Your task to perform on an android device: Turn off the flashlight Image 0: 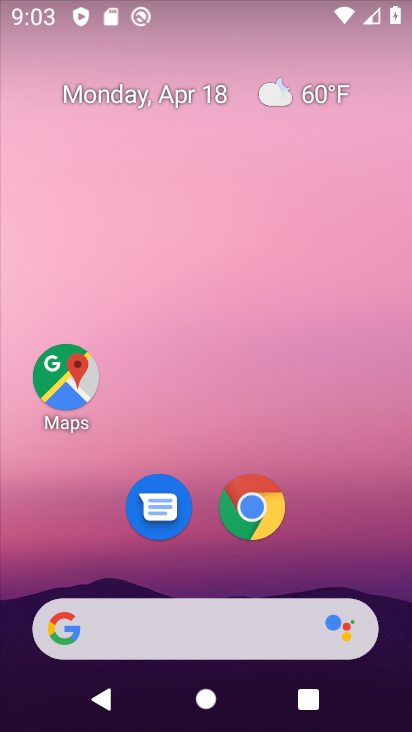
Step 0: drag from (325, 571) to (335, 138)
Your task to perform on an android device: Turn off the flashlight Image 1: 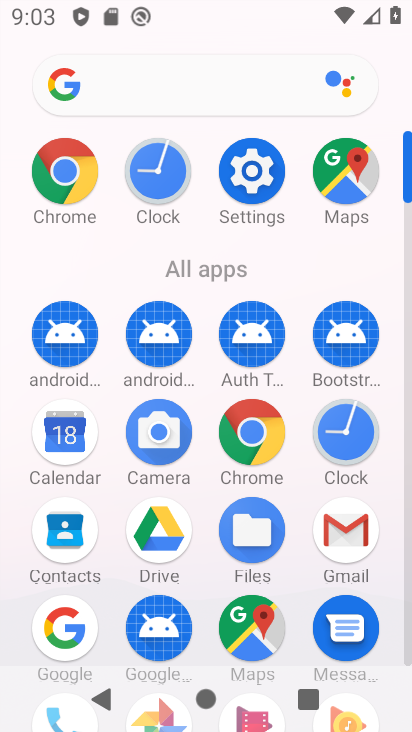
Step 1: click (261, 186)
Your task to perform on an android device: Turn off the flashlight Image 2: 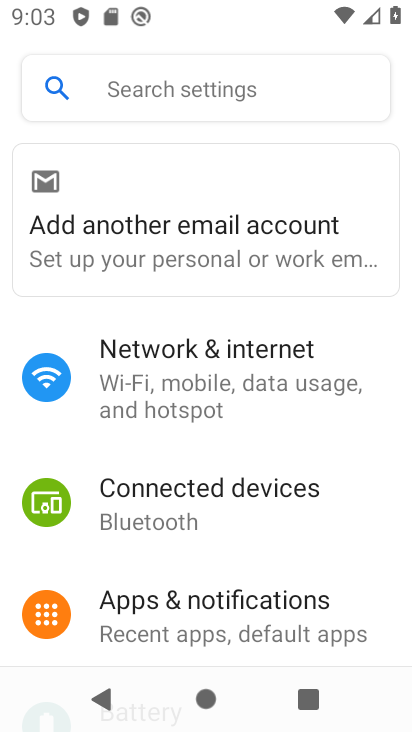
Step 2: click (258, 84)
Your task to perform on an android device: Turn off the flashlight Image 3: 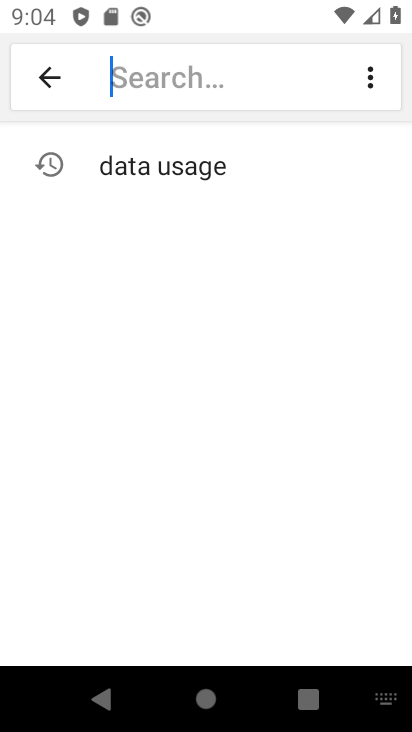
Step 3: type "Flashlight"
Your task to perform on an android device: Turn off the flashlight Image 4: 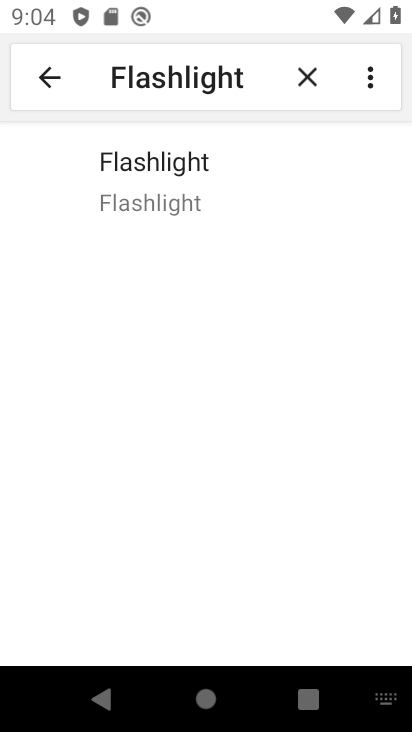
Step 4: click (172, 164)
Your task to perform on an android device: Turn off the flashlight Image 5: 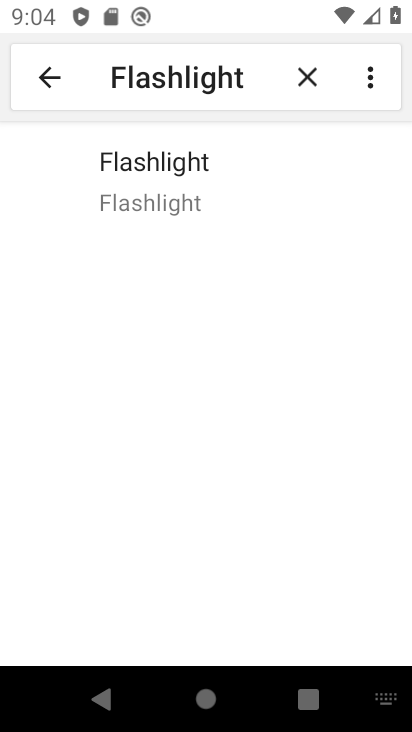
Step 5: task complete